Your task to perform on an android device: install app "Chime – Mobile Banking" Image 0: 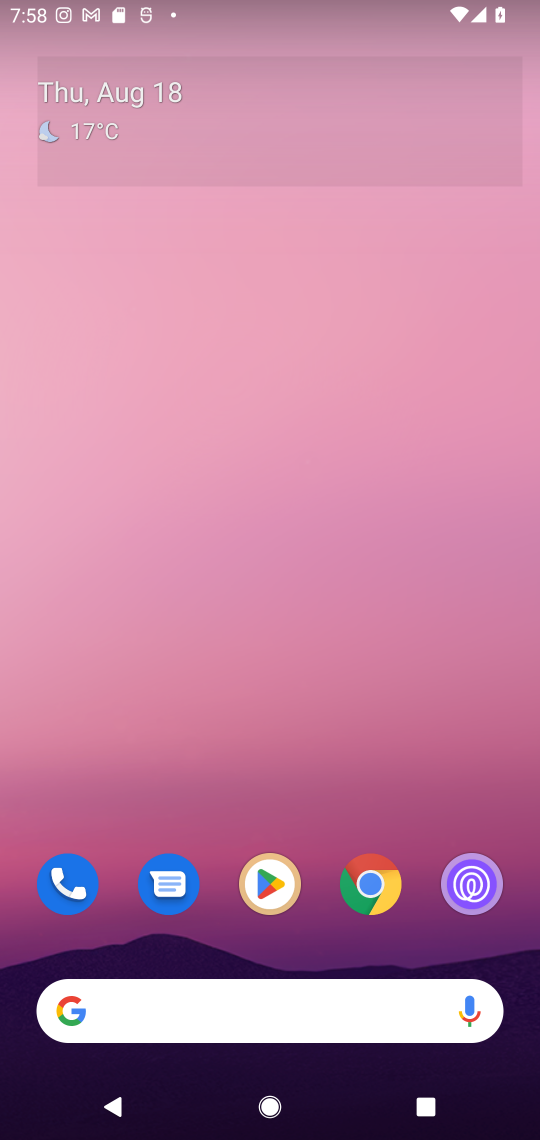
Step 0: drag from (241, 1016) to (374, 117)
Your task to perform on an android device: install app "Chime – Mobile Banking" Image 1: 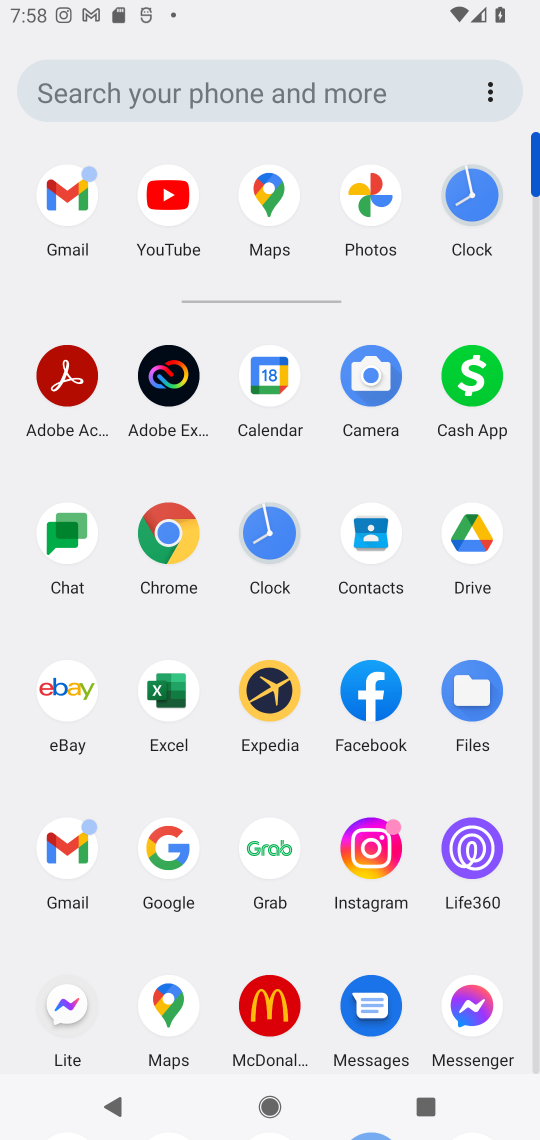
Step 1: drag from (257, 901) to (309, 683)
Your task to perform on an android device: install app "Chime – Mobile Banking" Image 2: 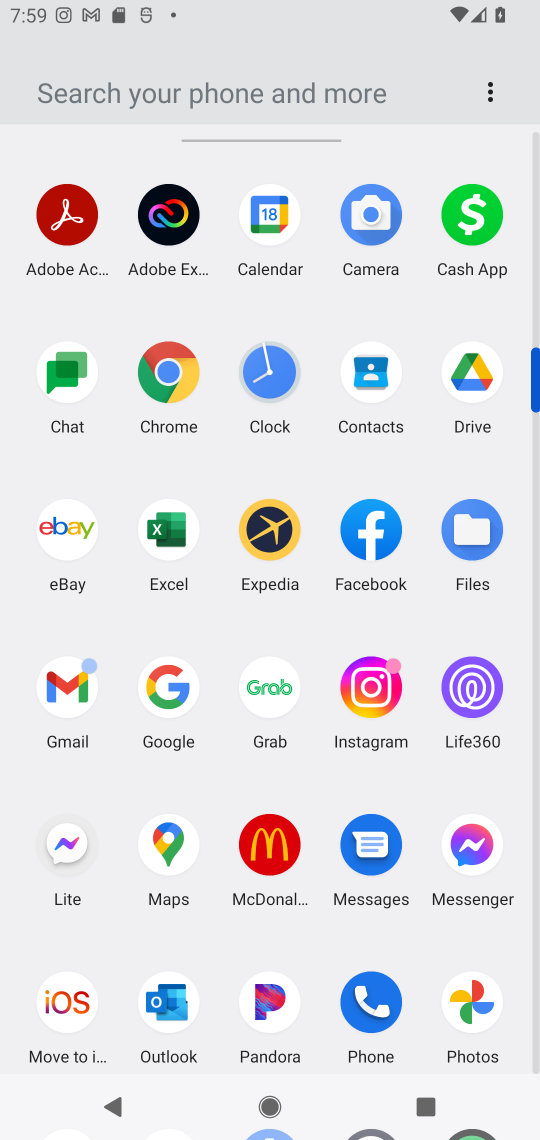
Step 2: drag from (202, 945) to (297, 618)
Your task to perform on an android device: install app "Chime – Mobile Banking" Image 3: 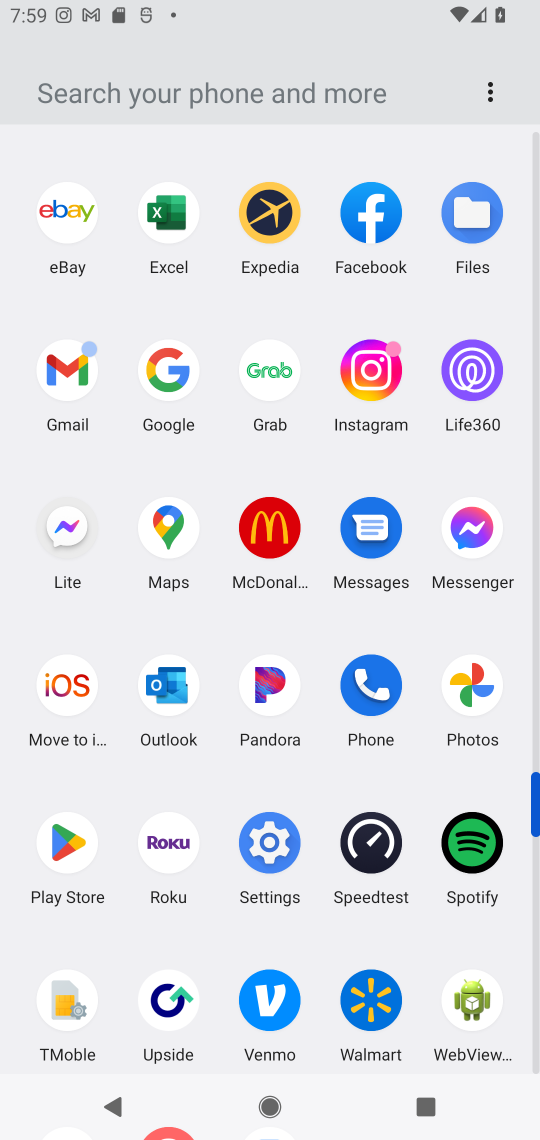
Step 3: click (77, 848)
Your task to perform on an android device: install app "Chime – Mobile Banking" Image 4: 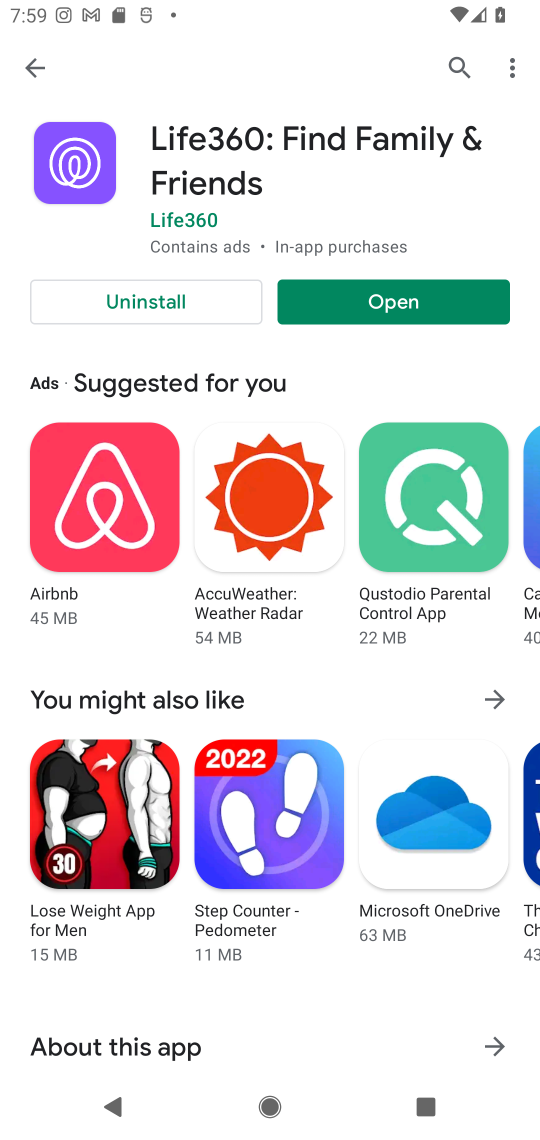
Step 4: press back button
Your task to perform on an android device: install app "Chime – Mobile Banking" Image 5: 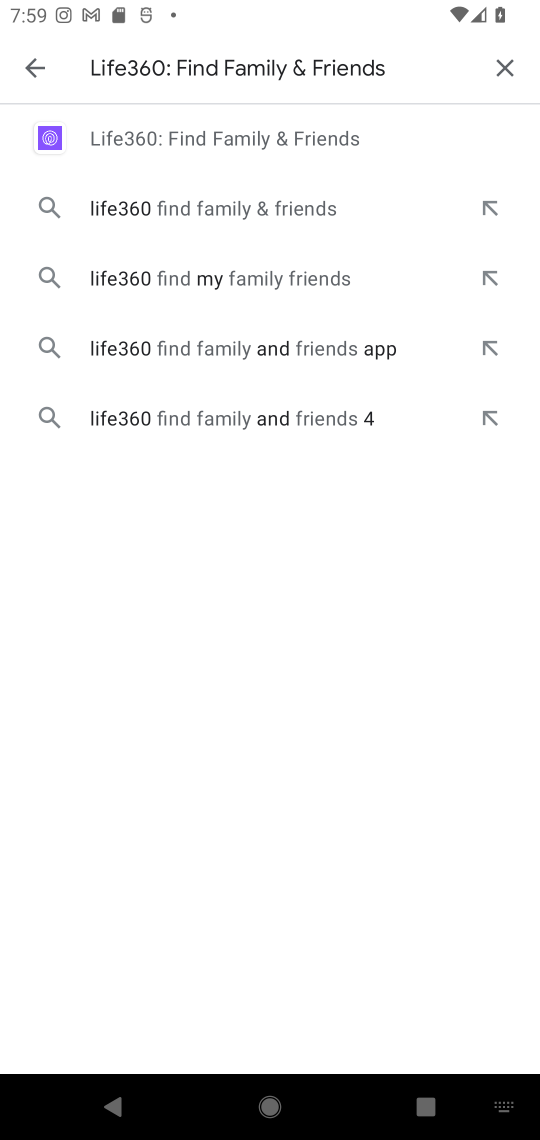
Step 5: press back button
Your task to perform on an android device: install app "Chime – Mobile Banking" Image 6: 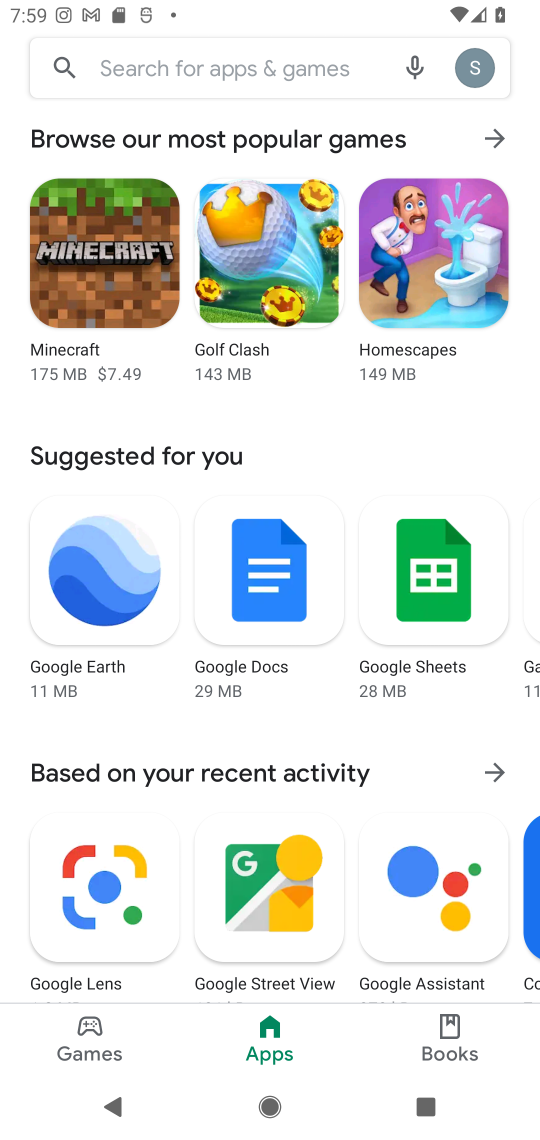
Step 6: click (207, 73)
Your task to perform on an android device: install app "Chime – Mobile Banking" Image 7: 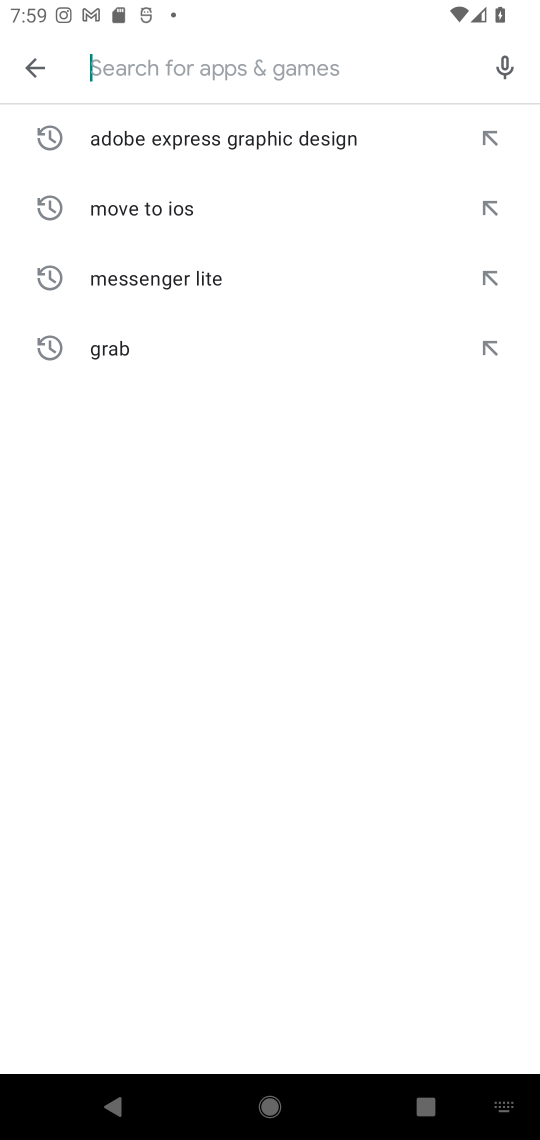
Step 7: type "Chime – Mobile Banking"
Your task to perform on an android device: install app "Chime – Mobile Banking" Image 8: 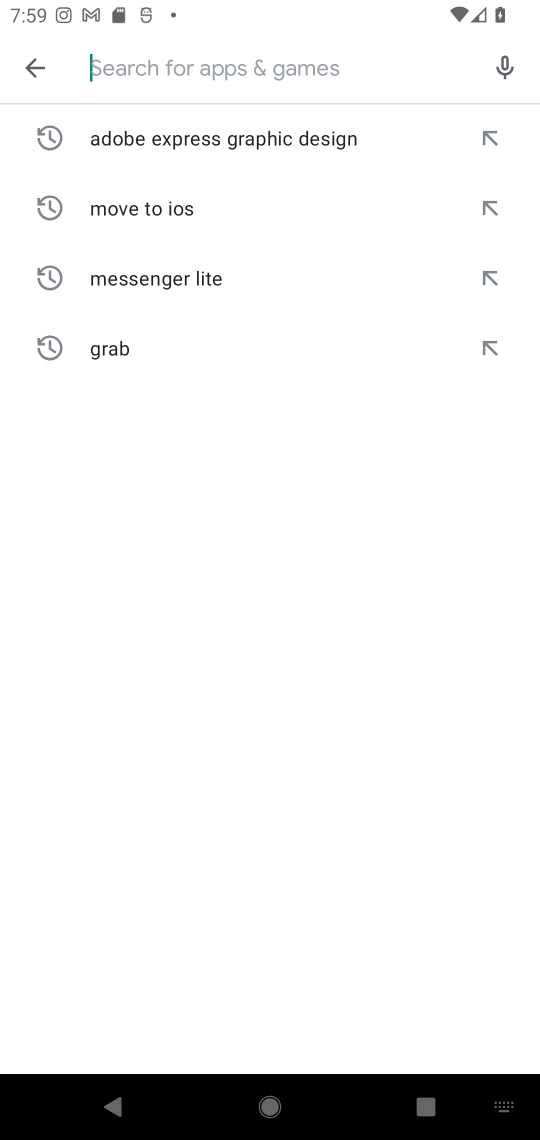
Step 8: click (261, 75)
Your task to perform on an android device: install app "Chime – Mobile Banking" Image 9: 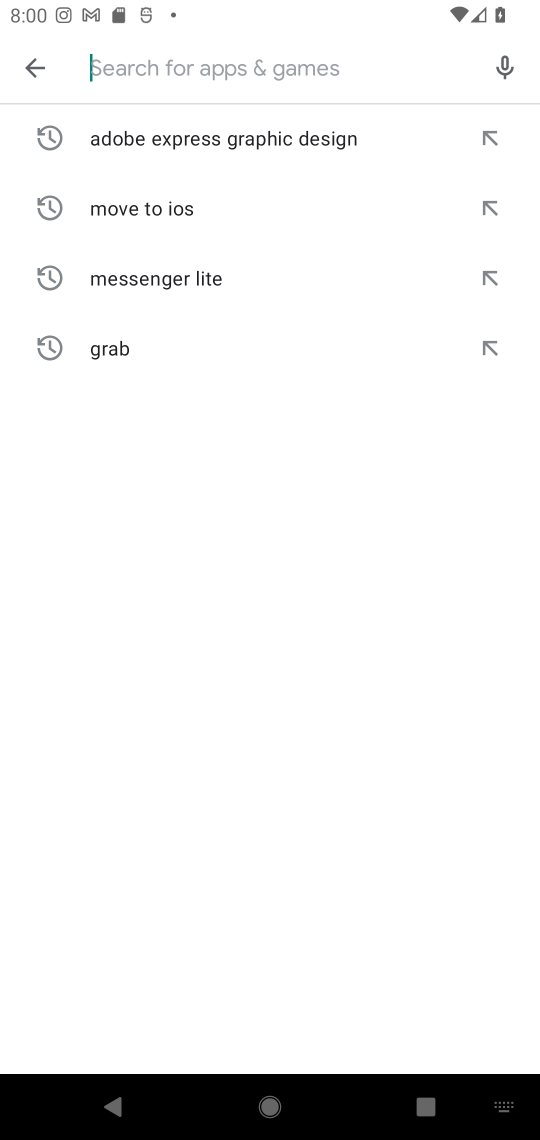
Step 9: type "Chima - Mobile Banking"
Your task to perform on an android device: install app "Chime – Mobile Banking" Image 10: 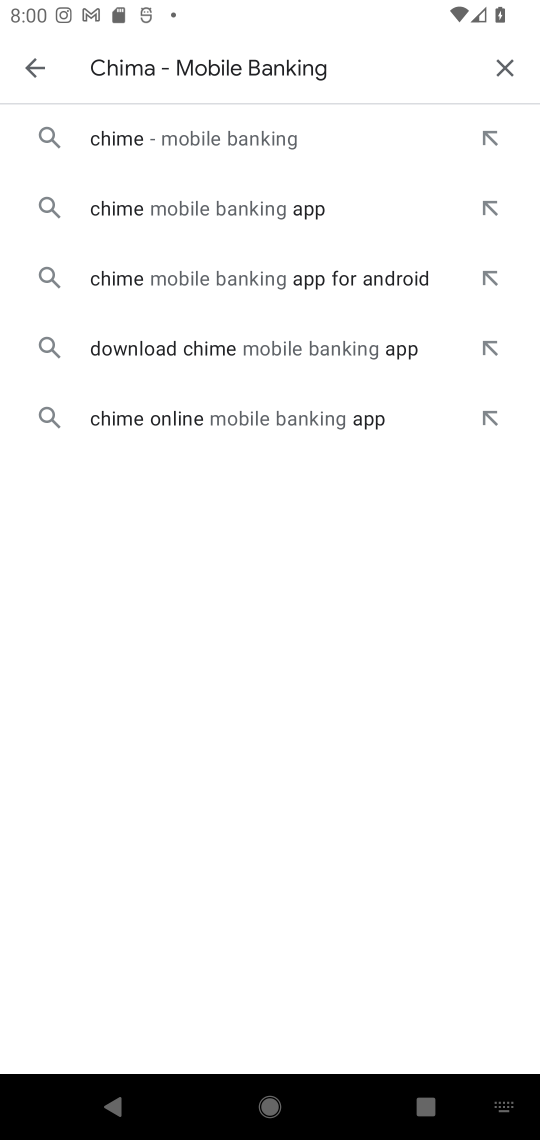
Step 10: click (258, 146)
Your task to perform on an android device: install app "Chime – Mobile Banking" Image 11: 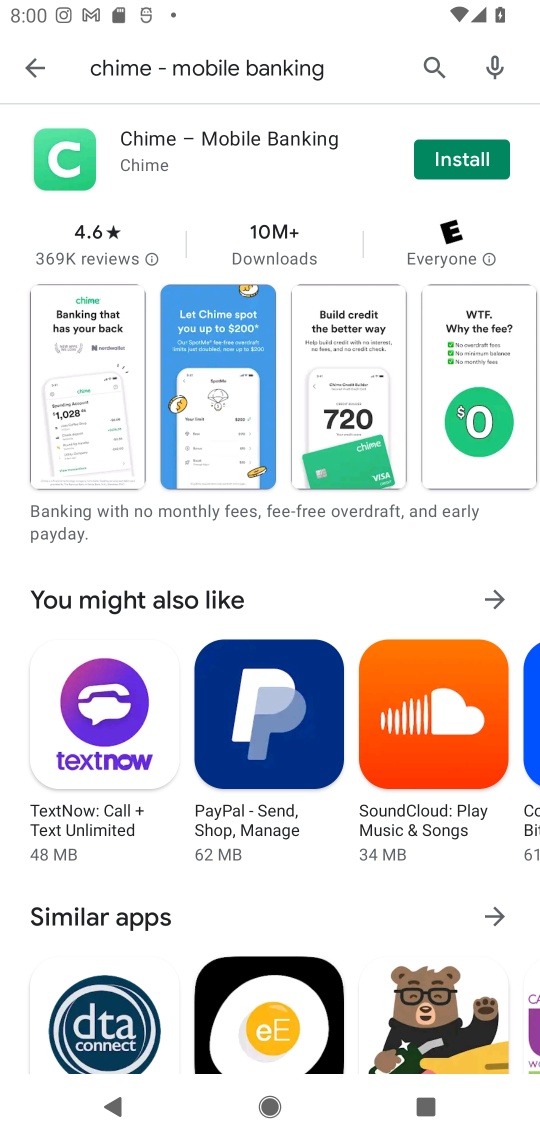
Step 11: click (456, 161)
Your task to perform on an android device: install app "Chime – Mobile Banking" Image 12: 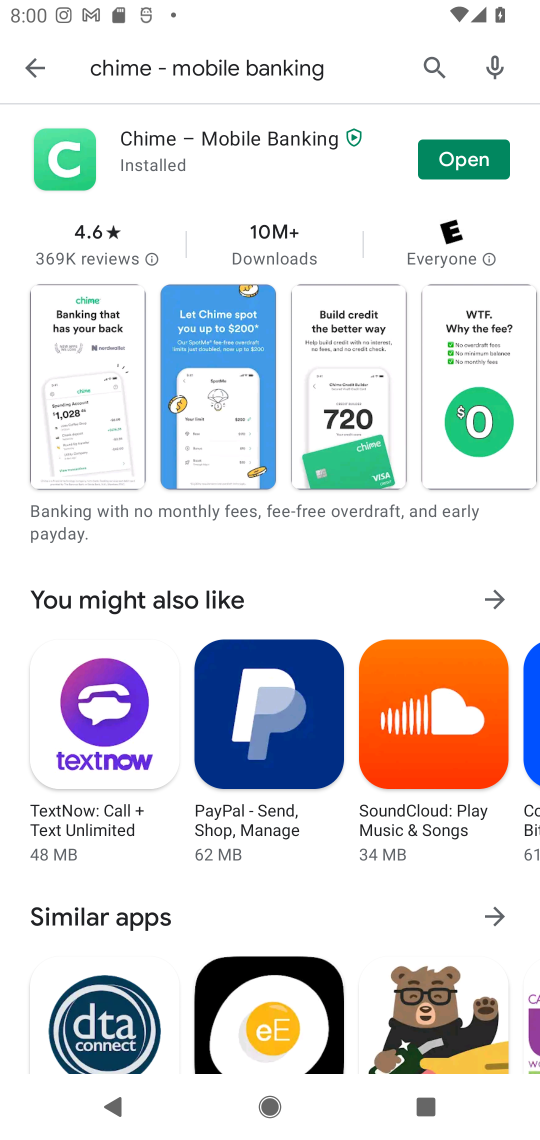
Step 12: task complete